Your task to perform on an android device: clear history in the chrome app Image 0: 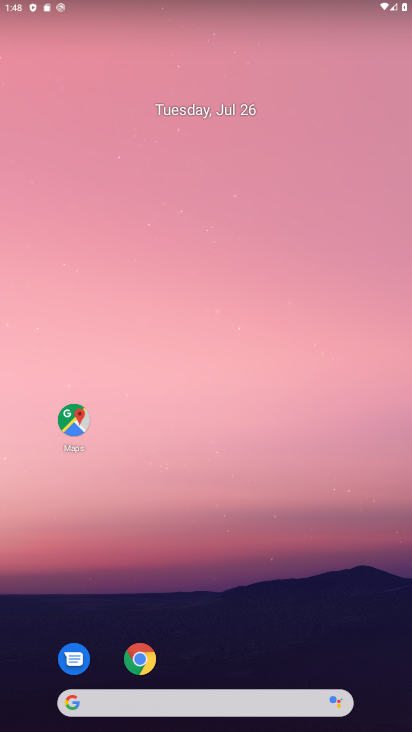
Step 0: click (145, 655)
Your task to perform on an android device: clear history in the chrome app Image 1: 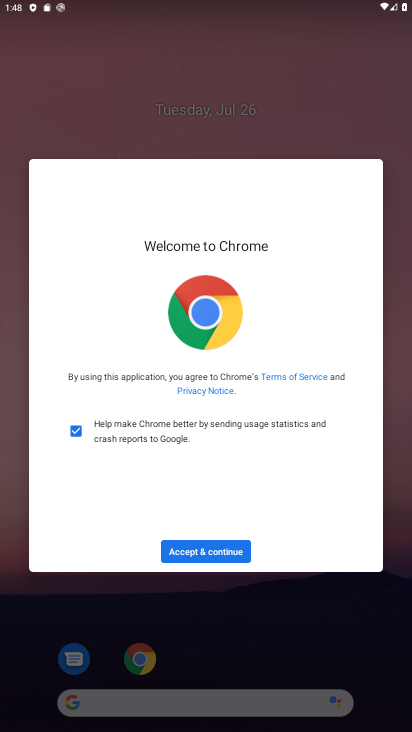
Step 1: click (185, 544)
Your task to perform on an android device: clear history in the chrome app Image 2: 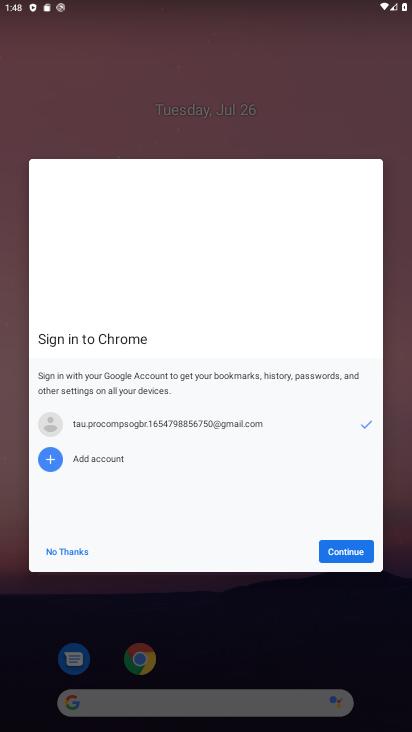
Step 2: click (341, 554)
Your task to perform on an android device: clear history in the chrome app Image 3: 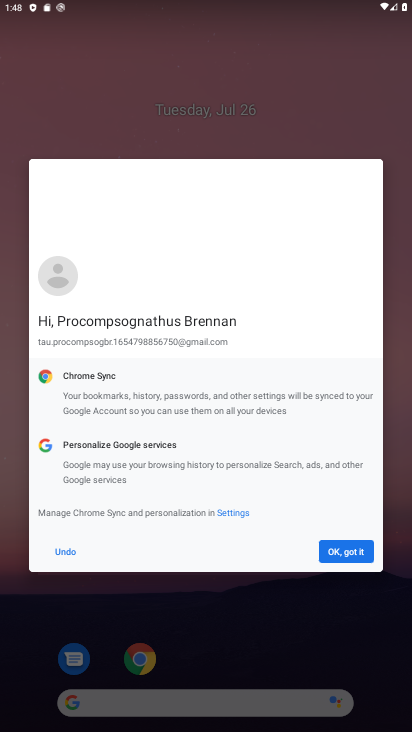
Step 3: click (341, 554)
Your task to perform on an android device: clear history in the chrome app Image 4: 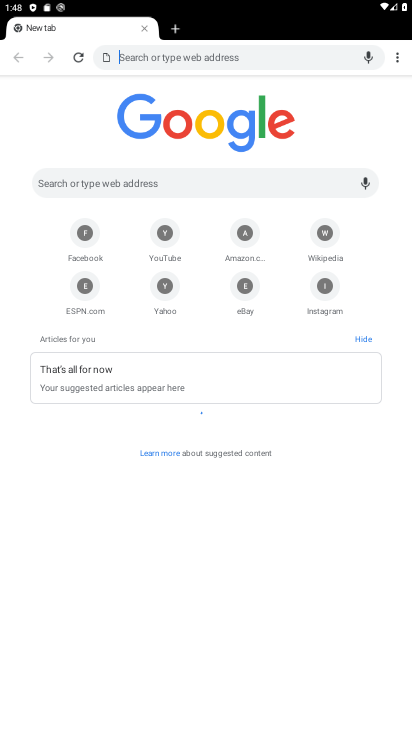
Step 4: click (397, 60)
Your task to perform on an android device: clear history in the chrome app Image 5: 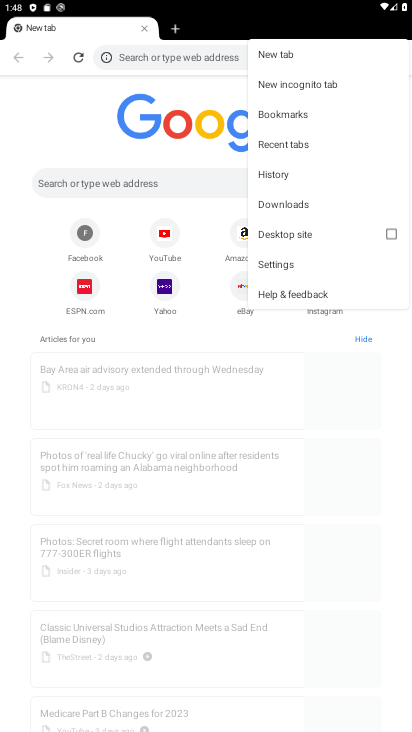
Step 5: click (275, 174)
Your task to perform on an android device: clear history in the chrome app Image 6: 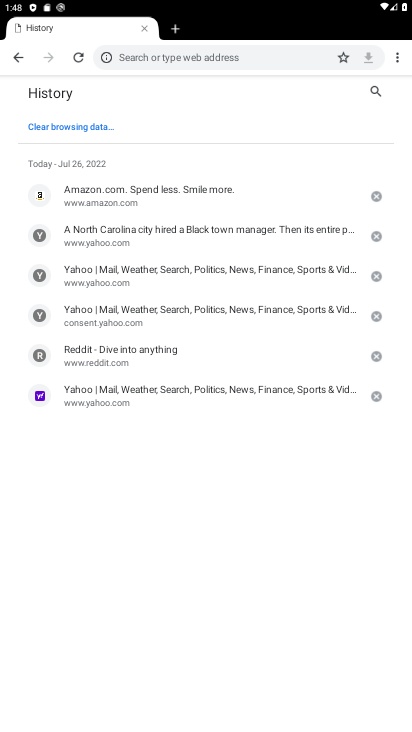
Step 6: click (59, 125)
Your task to perform on an android device: clear history in the chrome app Image 7: 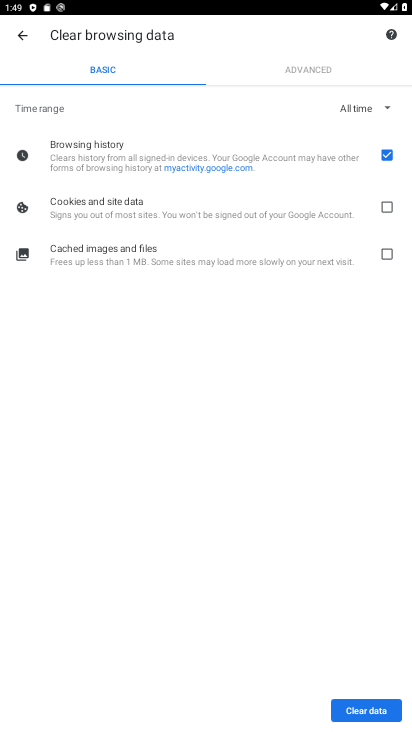
Step 7: click (390, 212)
Your task to perform on an android device: clear history in the chrome app Image 8: 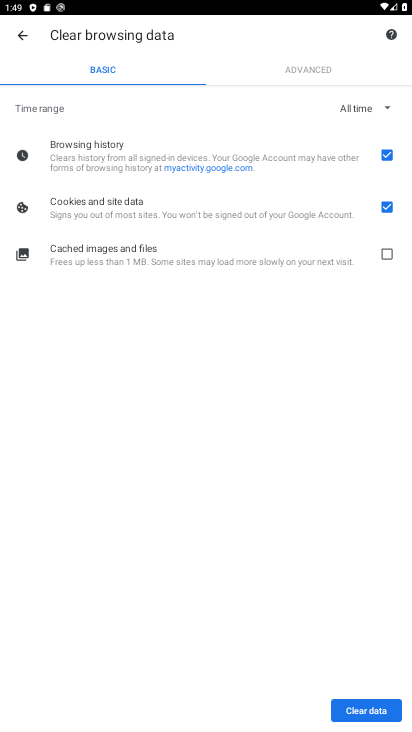
Step 8: click (390, 251)
Your task to perform on an android device: clear history in the chrome app Image 9: 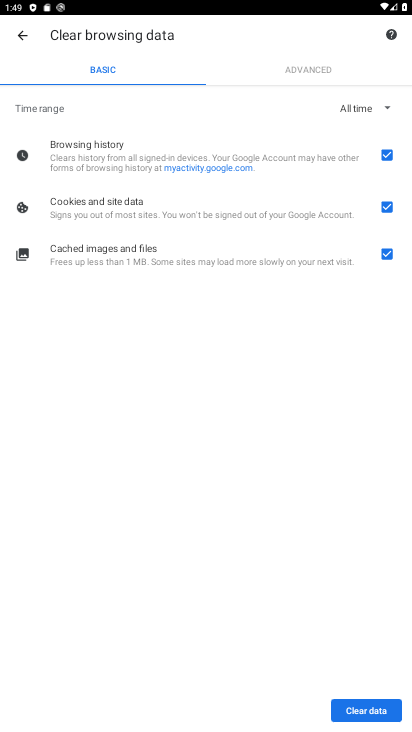
Step 9: click (379, 701)
Your task to perform on an android device: clear history in the chrome app Image 10: 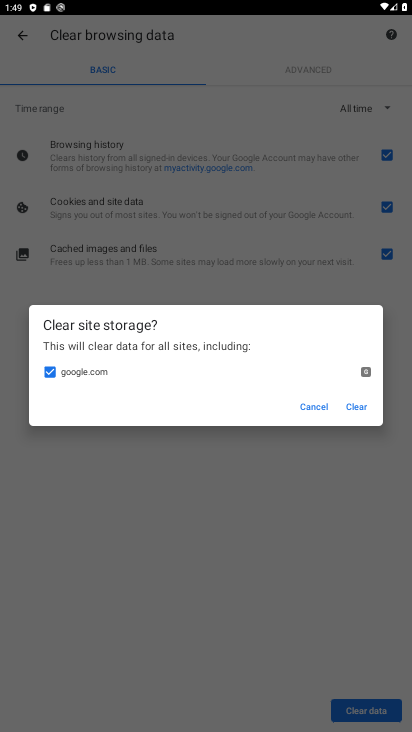
Step 10: click (354, 408)
Your task to perform on an android device: clear history in the chrome app Image 11: 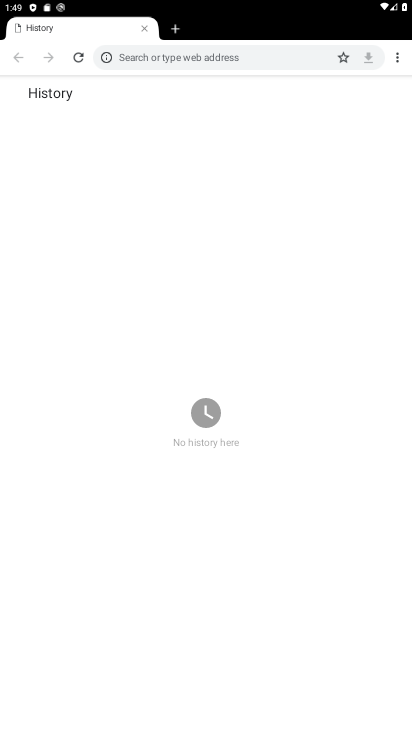
Step 11: task complete